Your task to perform on an android device: turn off notifications in google photos Image 0: 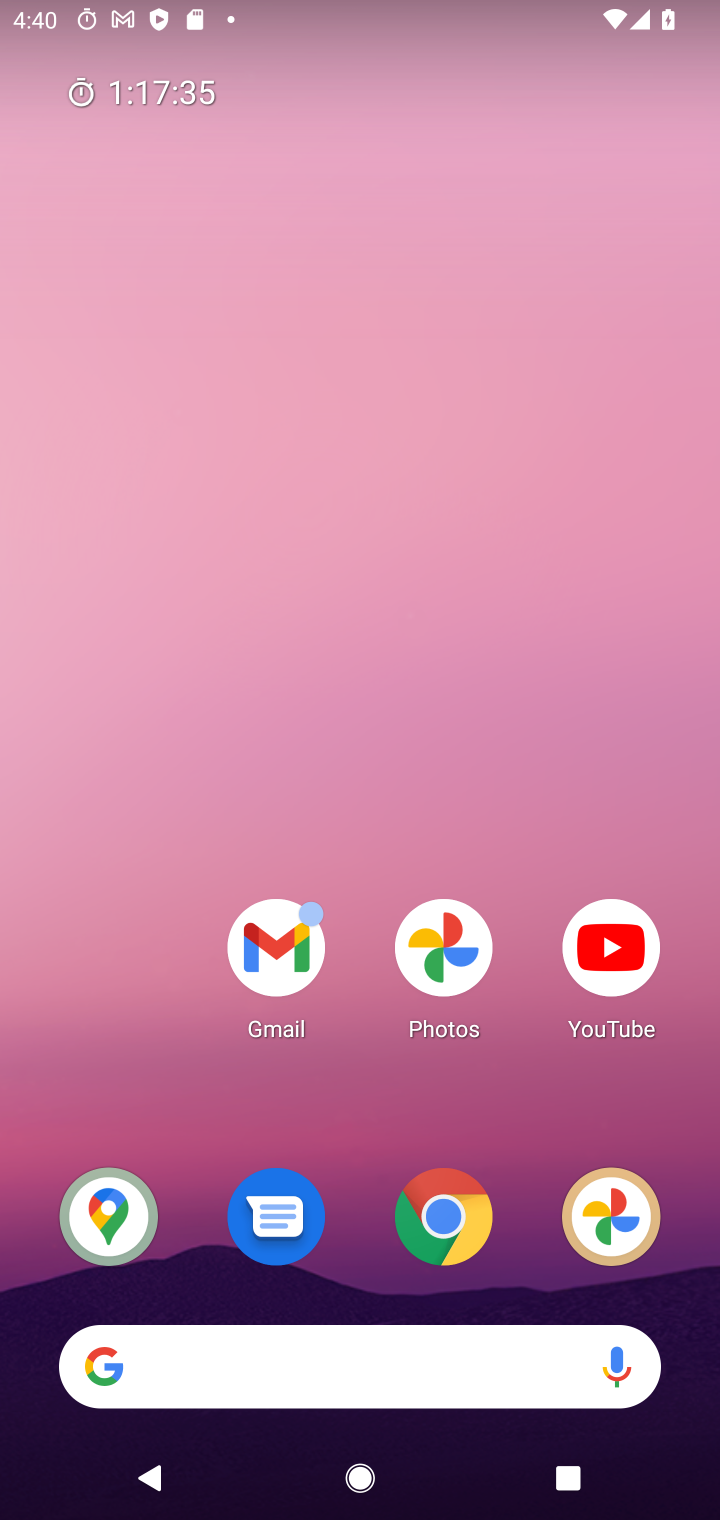
Step 0: press home button
Your task to perform on an android device: turn off notifications in google photos Image 1: 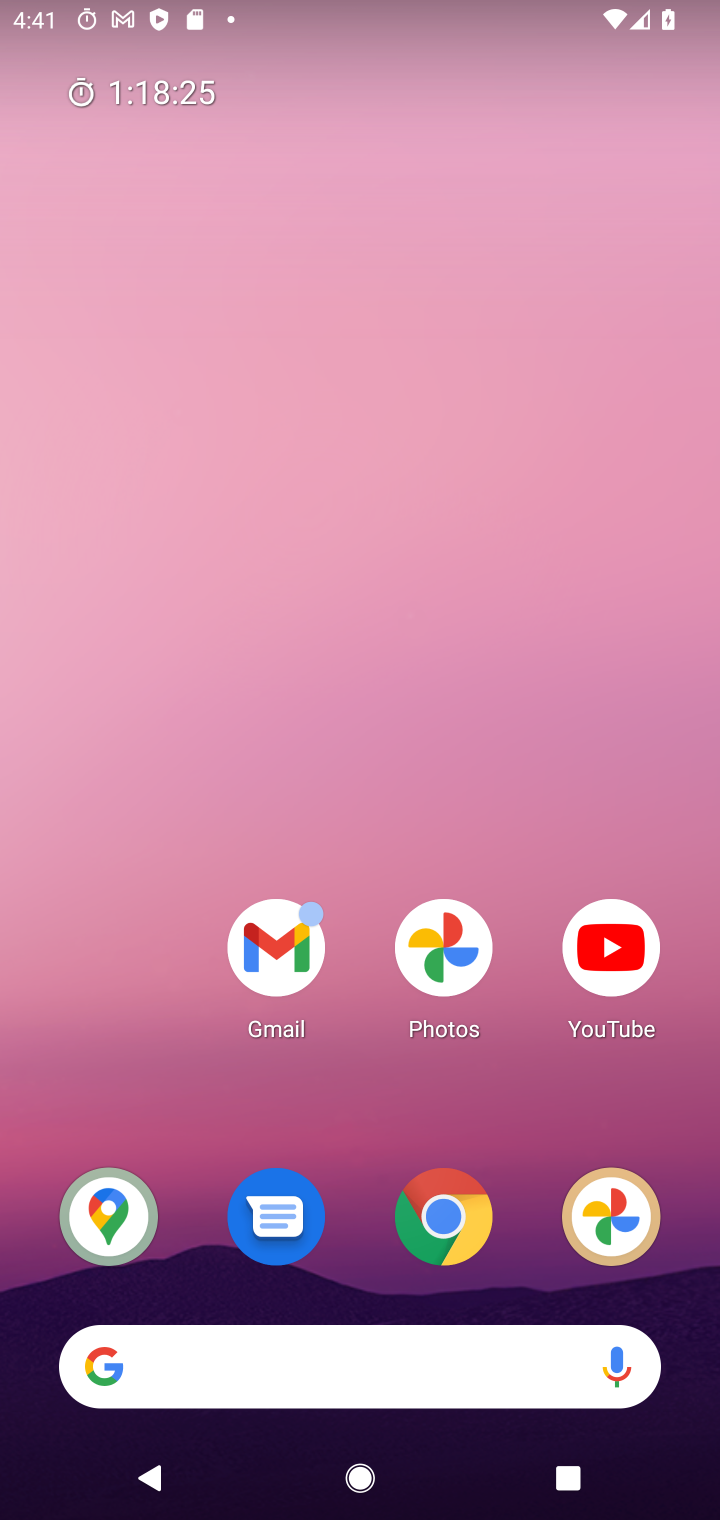
Step 1: click (630, 1221)
Your task to perform on an android device: turn off notifications in google photos Image 2: 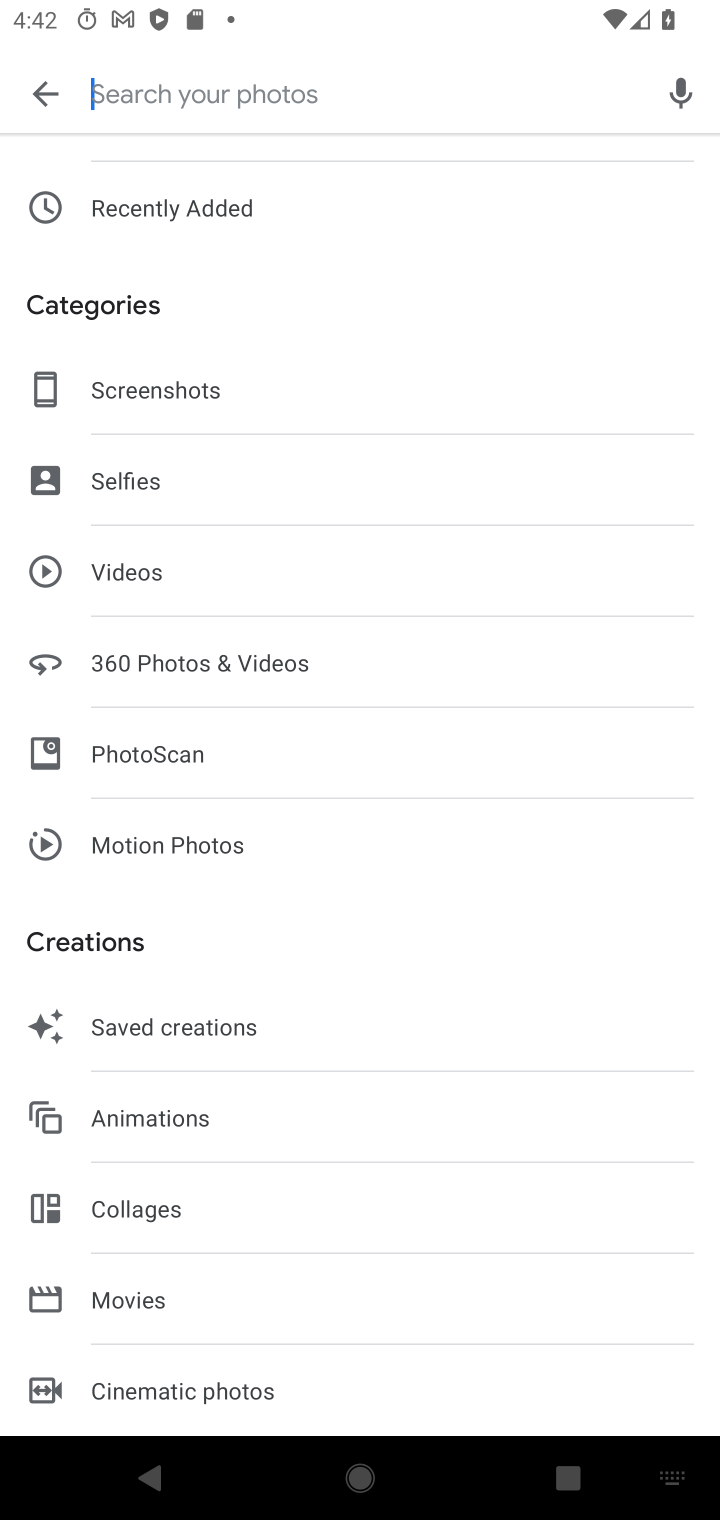
Step 2: click (54, 93)
Your task to perform on an android device: turn off notifications in google photos Image 3: 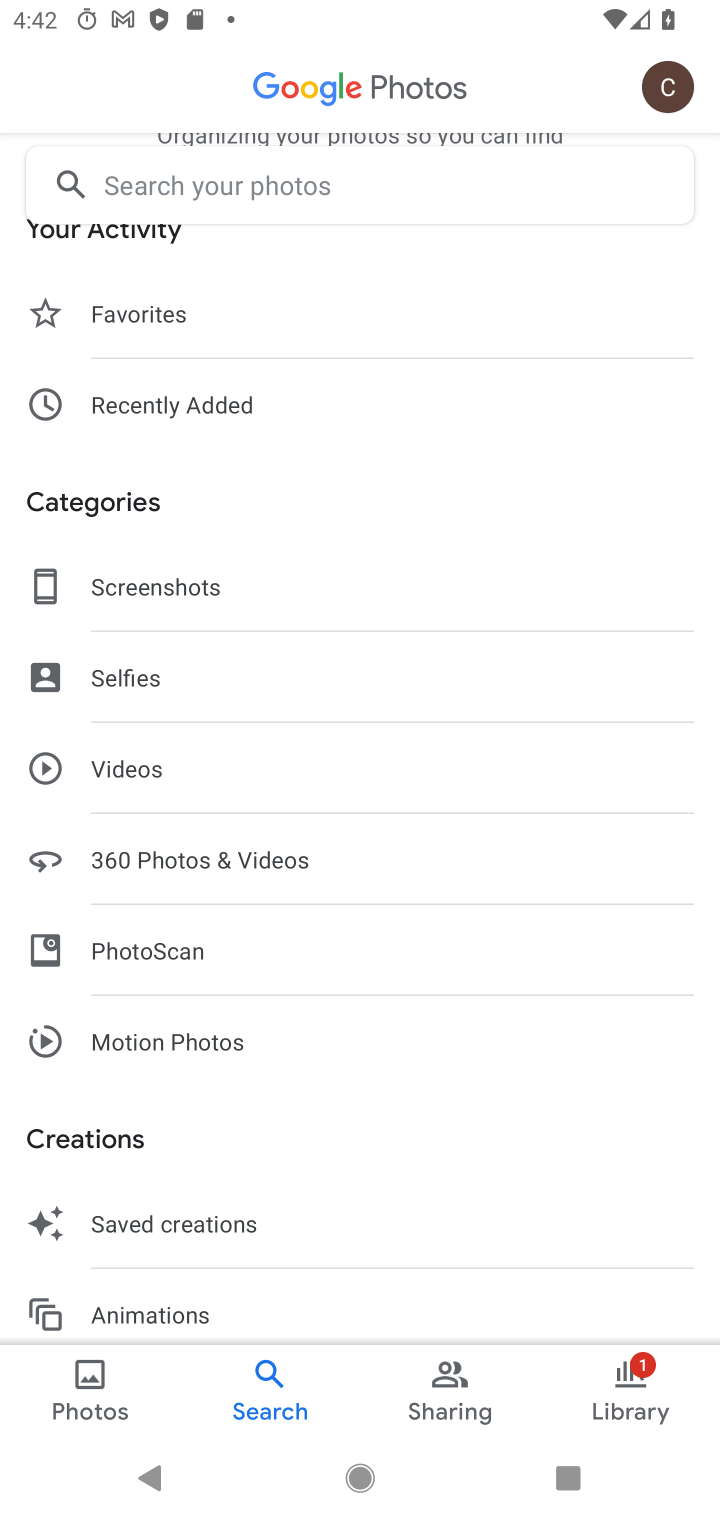
Step 3: drag from (63, 978) to (397, 182)
Your task to perform on an android device: turn off notifications in google photos Image 4: 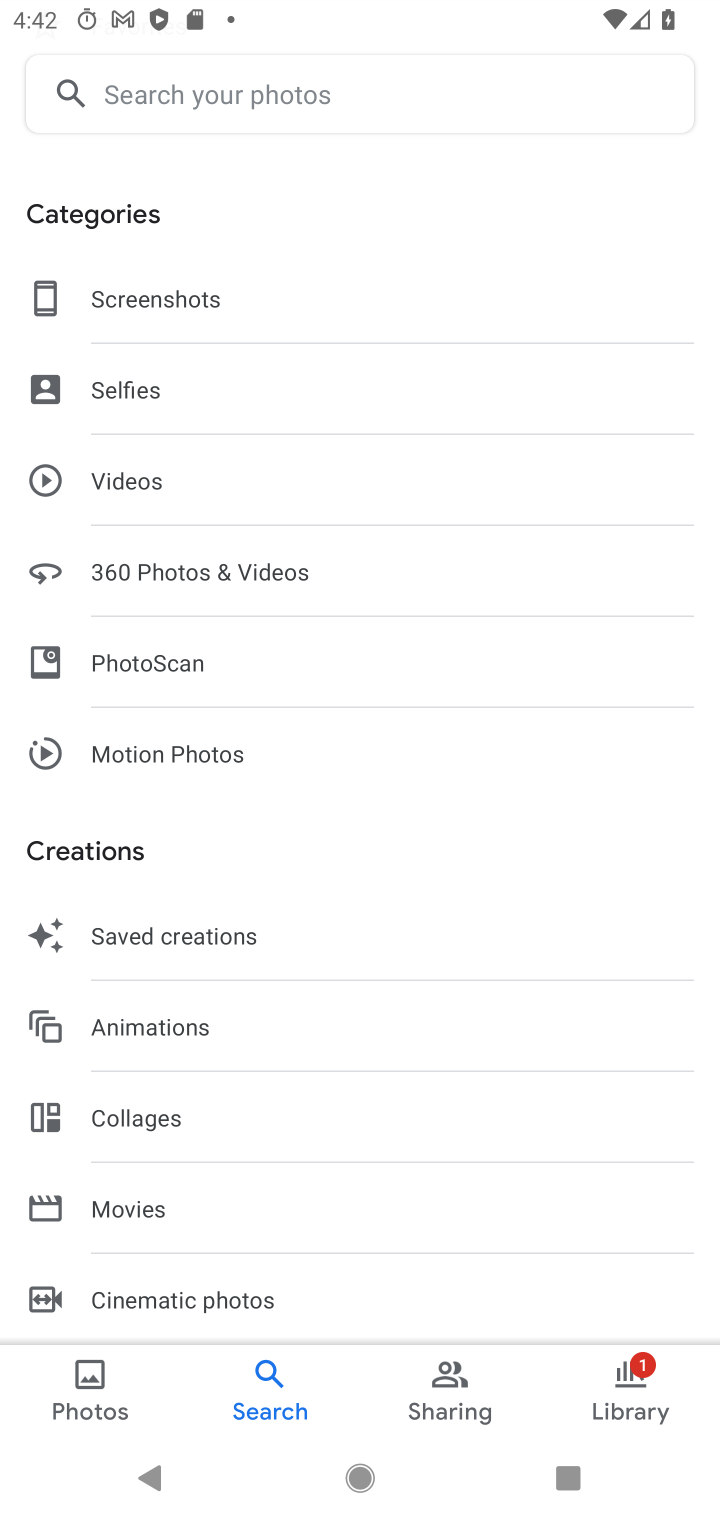
Step 4: click (100, 1376)
Your task to perform on an android device: turn off notifications in google photos Image 5: 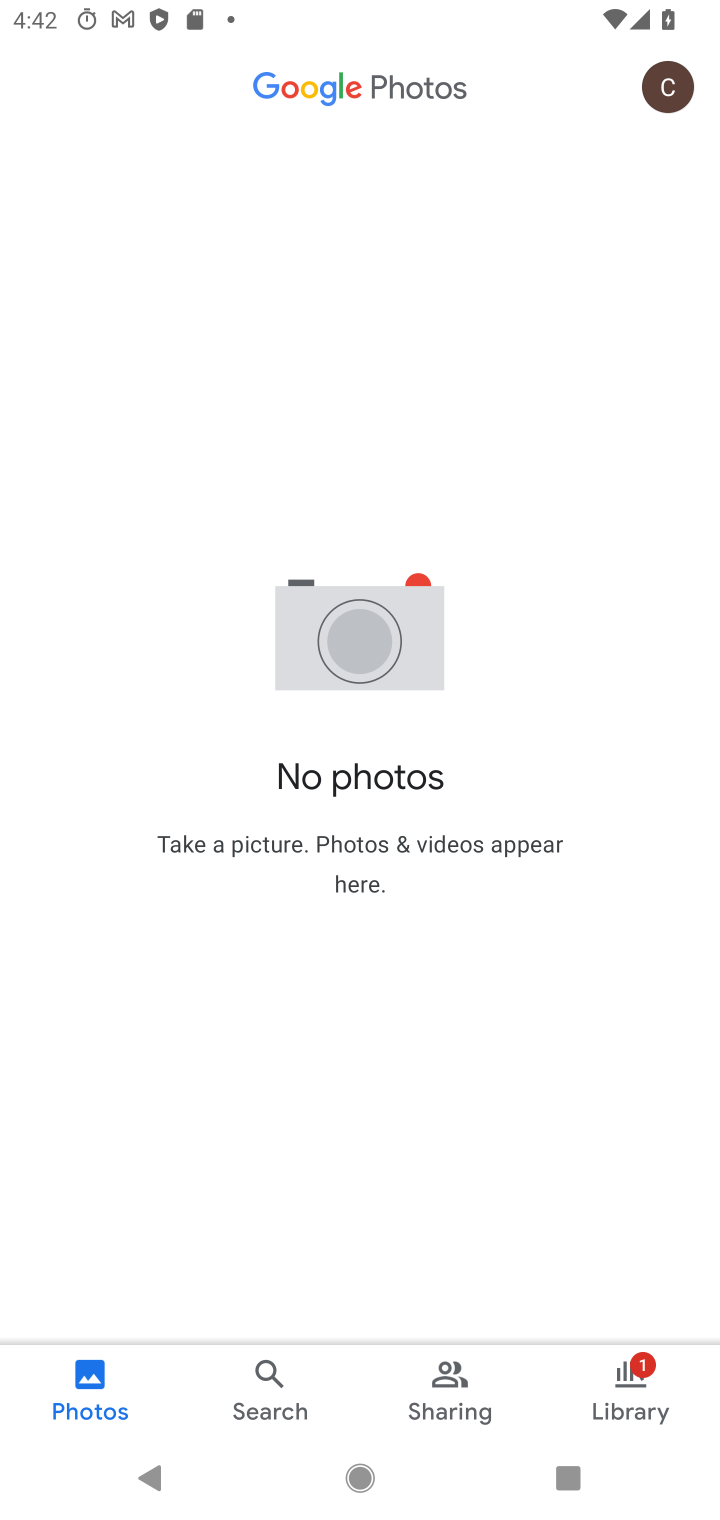
Step 5: task complete